Your task to perform on an android device: find which apps use the phone's location Image 0: 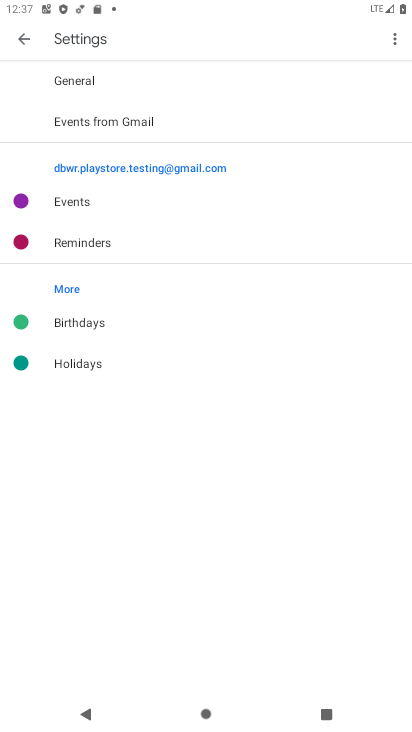
Step 0: press home button
Your task to perform on an android device: find which apps use the phone's location Image 1: 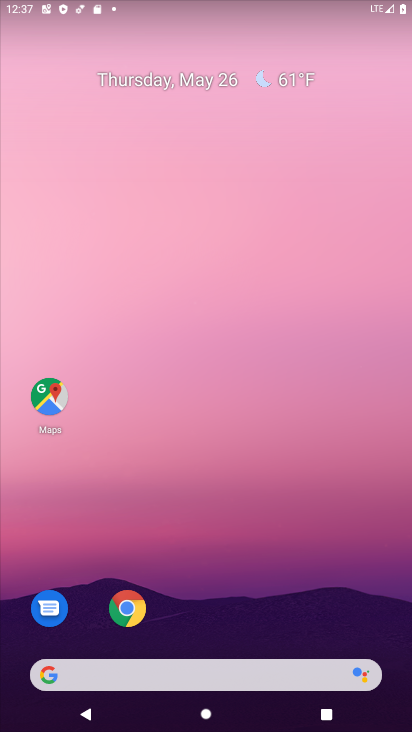
Step 1: drag from (360, 628) to (242, 139)
Your task to perform on an android device: find which apps use the phone's location Image 2: 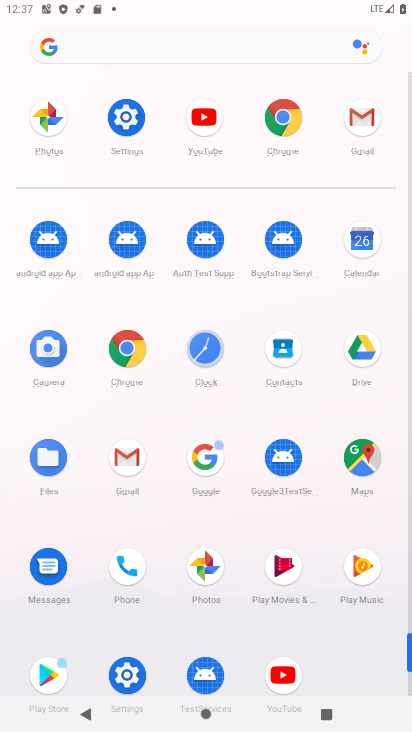
Step 2: click (126, 672)
Your task to perform on an android device: find which apps use the phone's location Image 3: 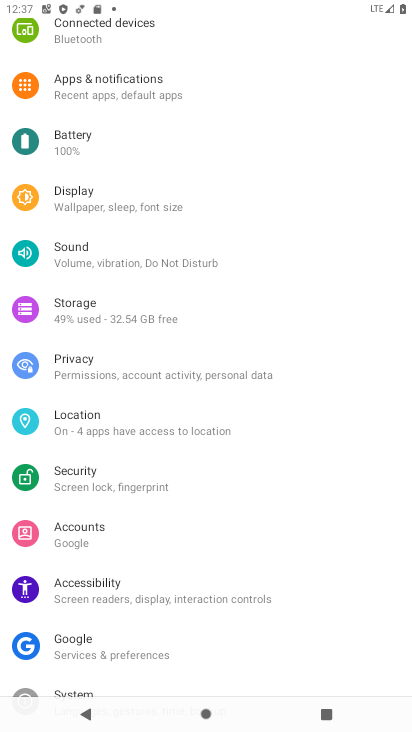
Step 3: click (102, 412)
Your task to perform on an android device: find which apps use the phone's location Image 4: 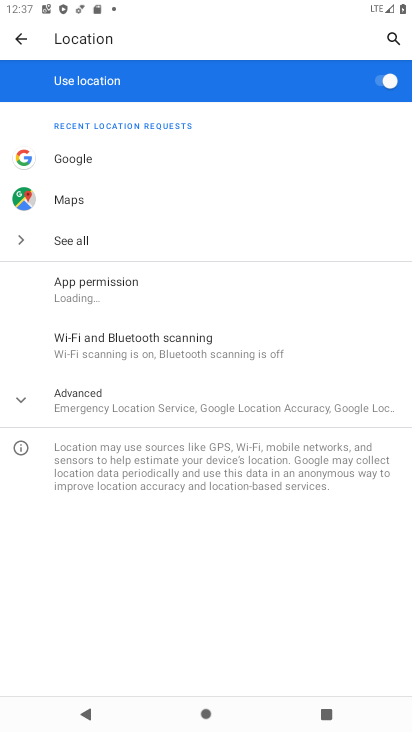
Step 4: click (99, 282)
Your task to perform on an android device: find which apps use the phone's location Image 5: 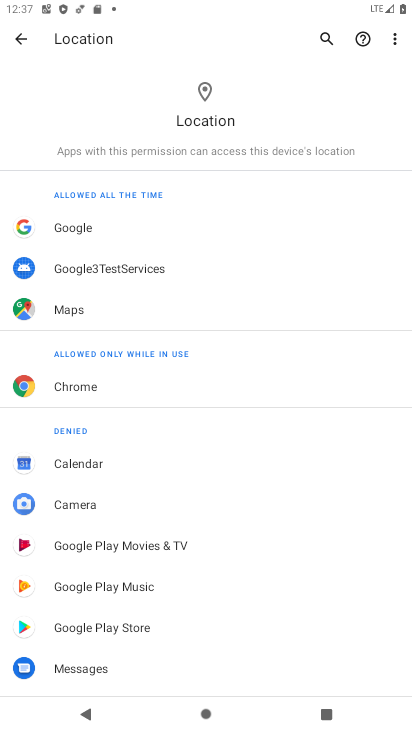
Step 5: drag from (198, 541) to (251, 308)
Your task to perform on an android device: find which apps use the phone's location Image 6: 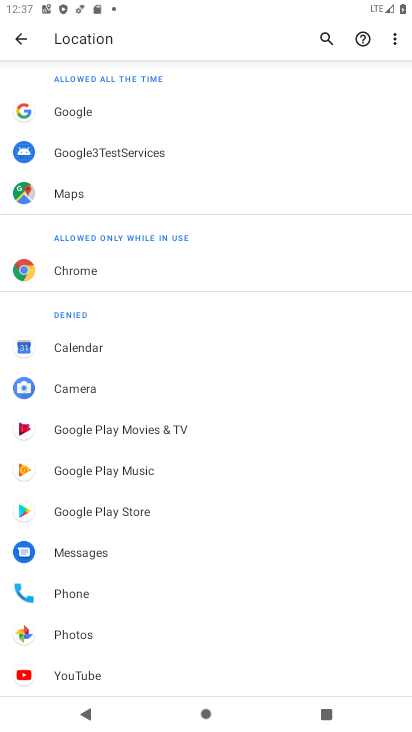
Step 6: click (76, 620)
Your task to perform on an android device: find which apps use the phone's location Image 7: 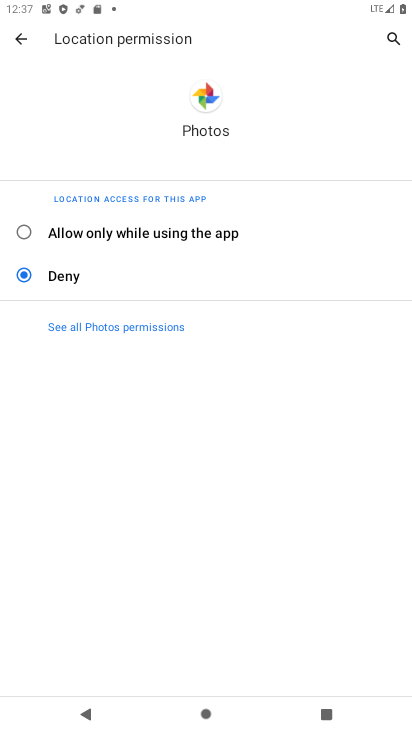
Step 7: task complete